Your task to perform on an android device: Go to settings Image 0: 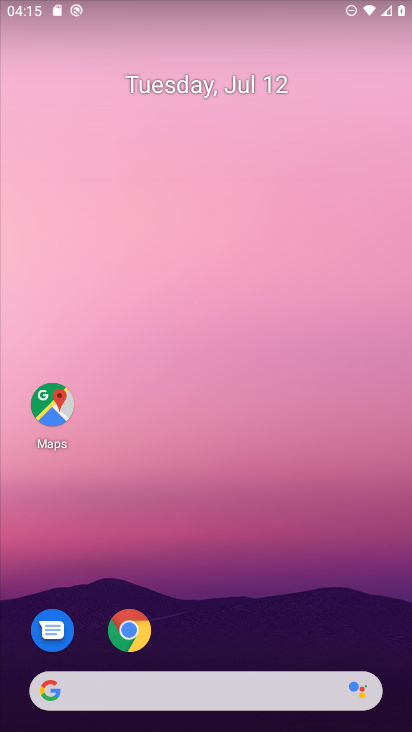
Step 0: drag from (373, 650) to (295, 51)
Your task to perform on an android device: Go to settings Image 1: 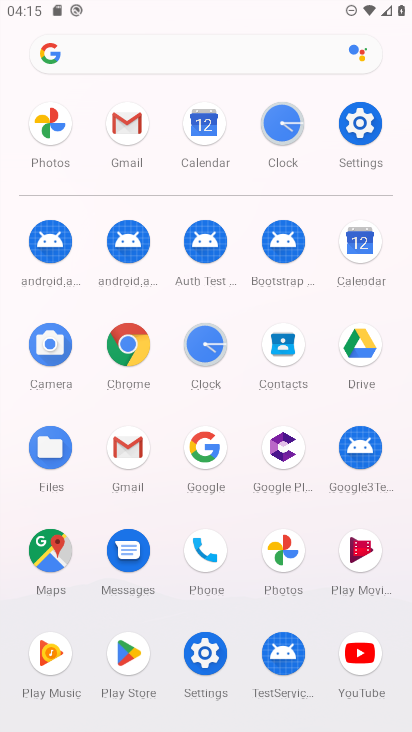
Step 1: click (204, 652)
Your task to perform on an android device: Go to settings Image 2: 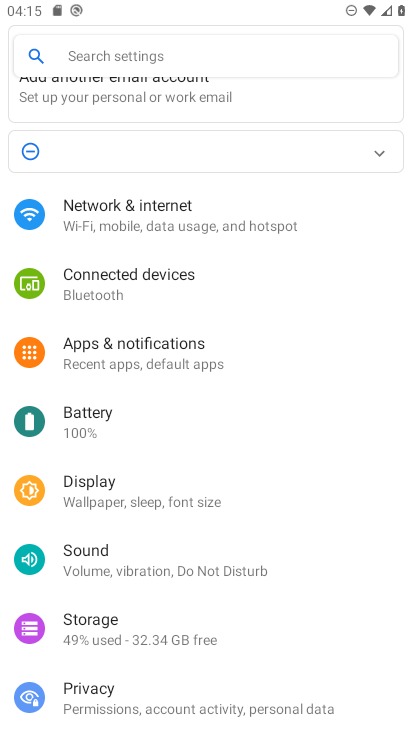
Step 2: task complete